Your task to perform on an android device: stop showing notifications on the lock screen Image 0: 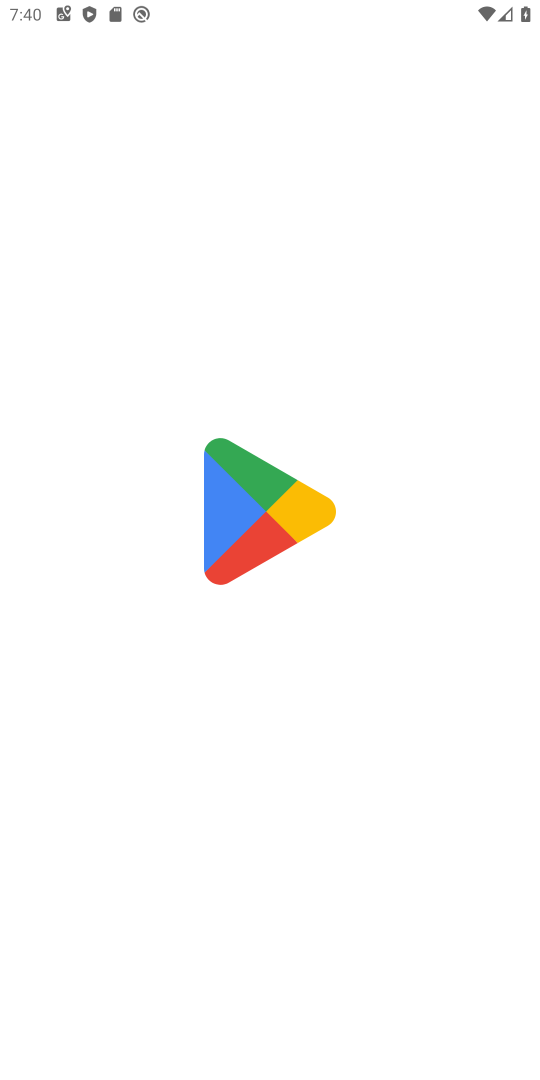
Step 0: press home button
Your task to perform on an android device: stop showing notifications on the lock screen Image 1: 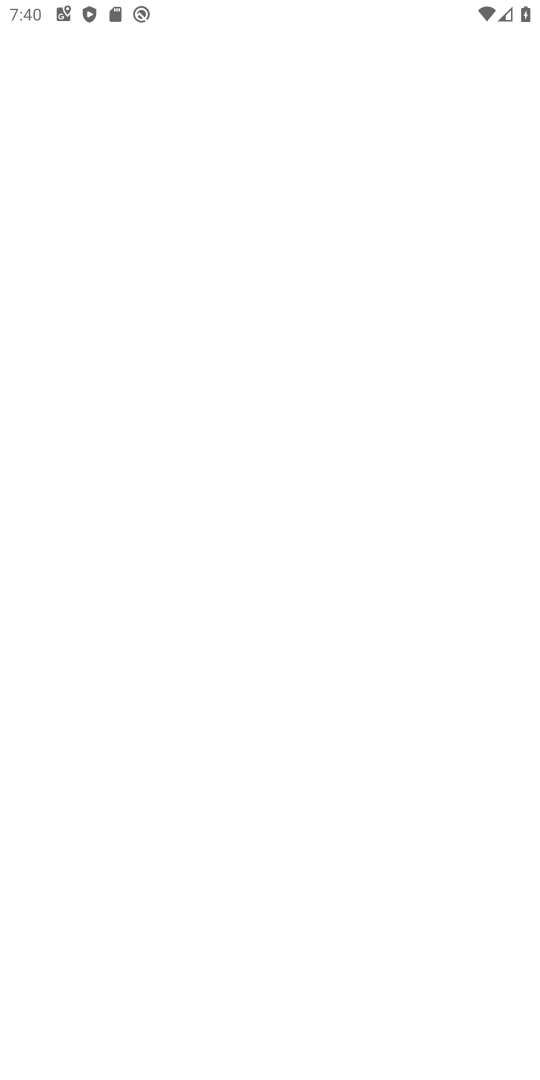
Step 1: press home button
Your task to perform on an android device: stop showing notifications on the lock screen Image 2: 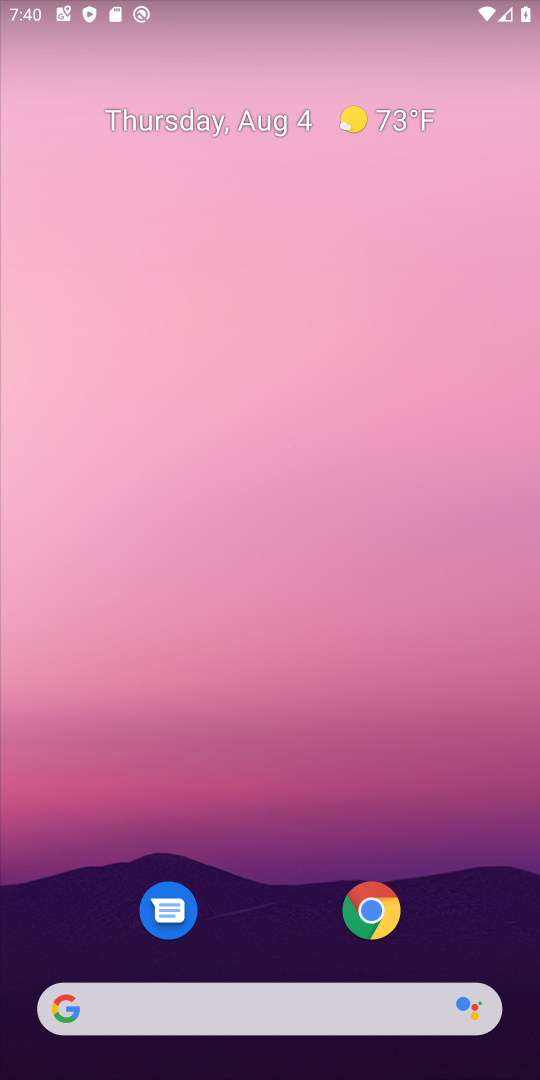
Step 2: drag from (445, 866) to (335, 129)
Your task to perform on an android device: stop showing notifications on the lock screen Image 3: 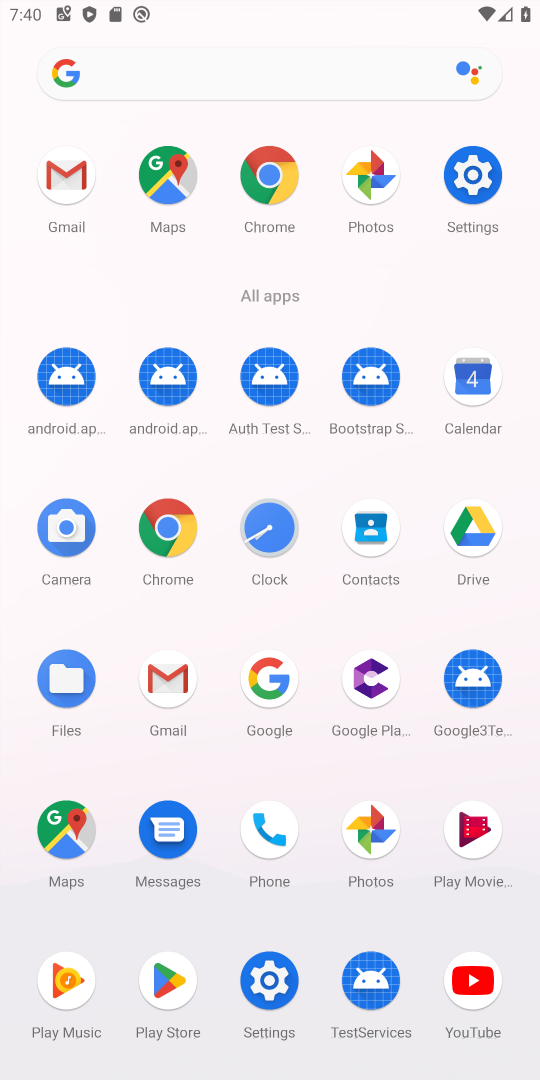
Step 3: click (276, 970)
Your task to perform on an android device: stop showing notifications on the lock screen Image 4: 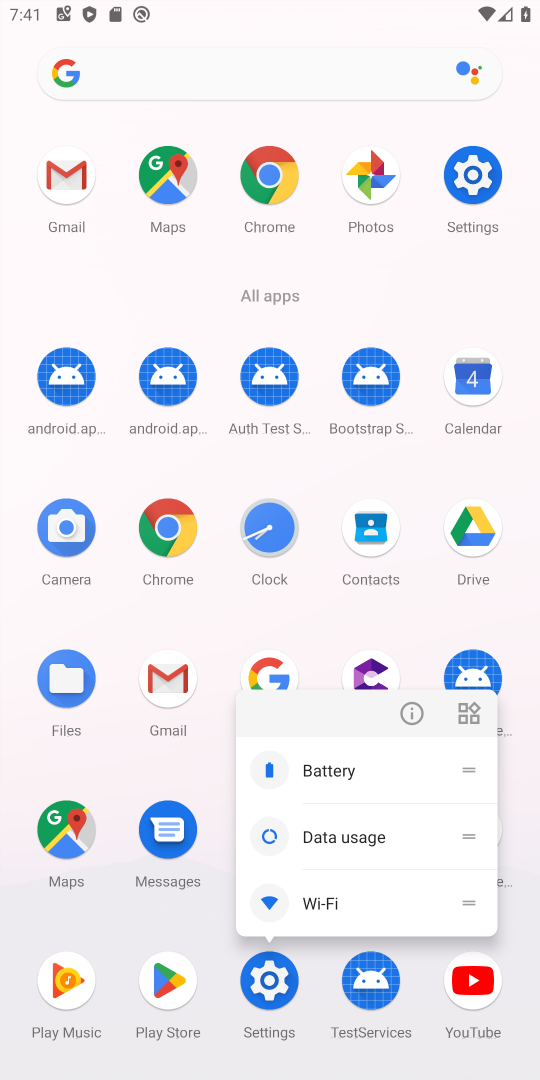
Step 4: click (273, 979)
Your task to perform on an android device: stop showing notifications on the lock screen Image 5: 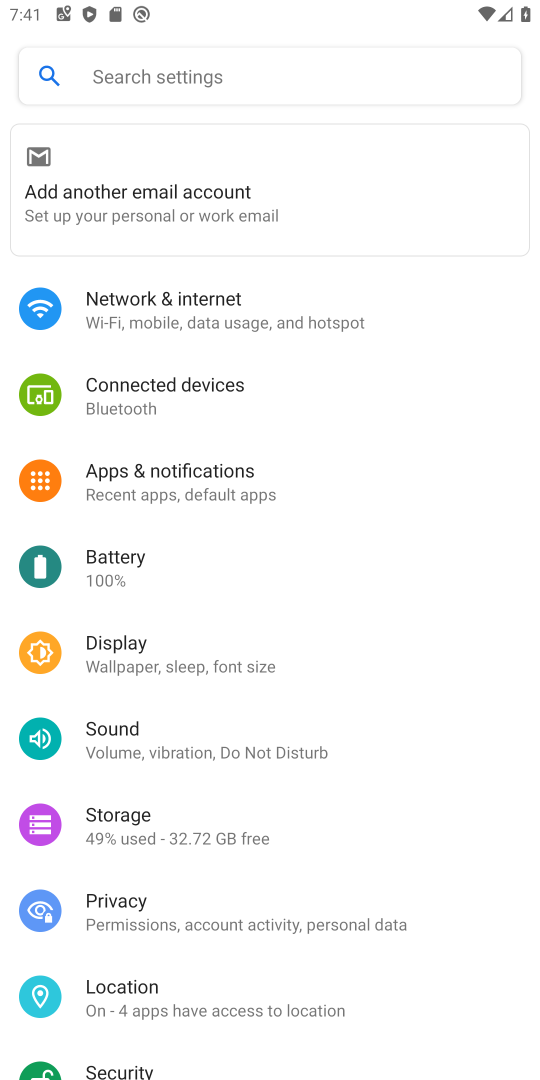
Step 5: click (146, 477)
Your task to perform on an android device: stop showing notifications on the lock screen Image 6: 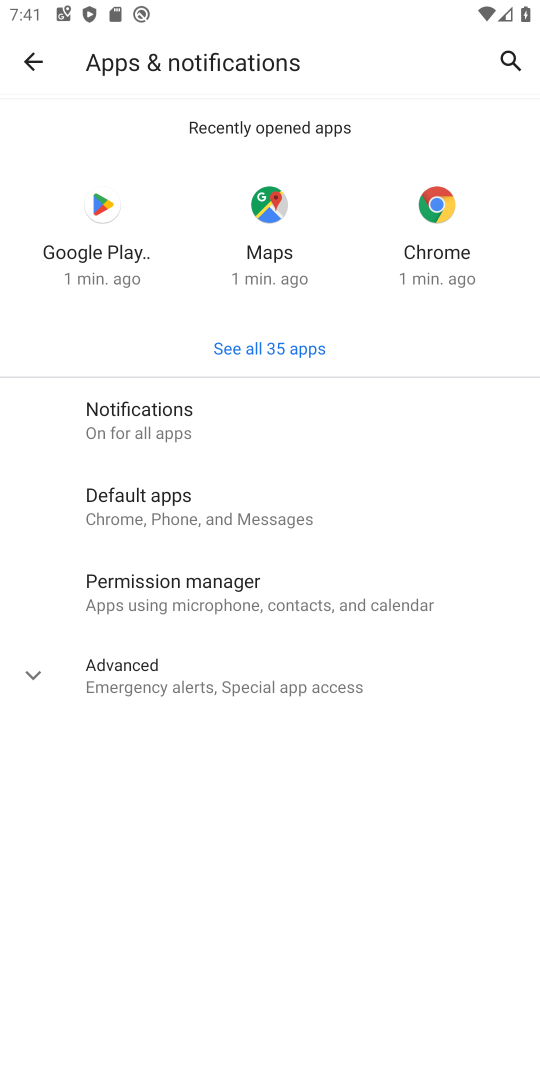
Step 6: click (130, 422)
Your task to perform on an android device: stop showing notifications on the lock screen Image 7: 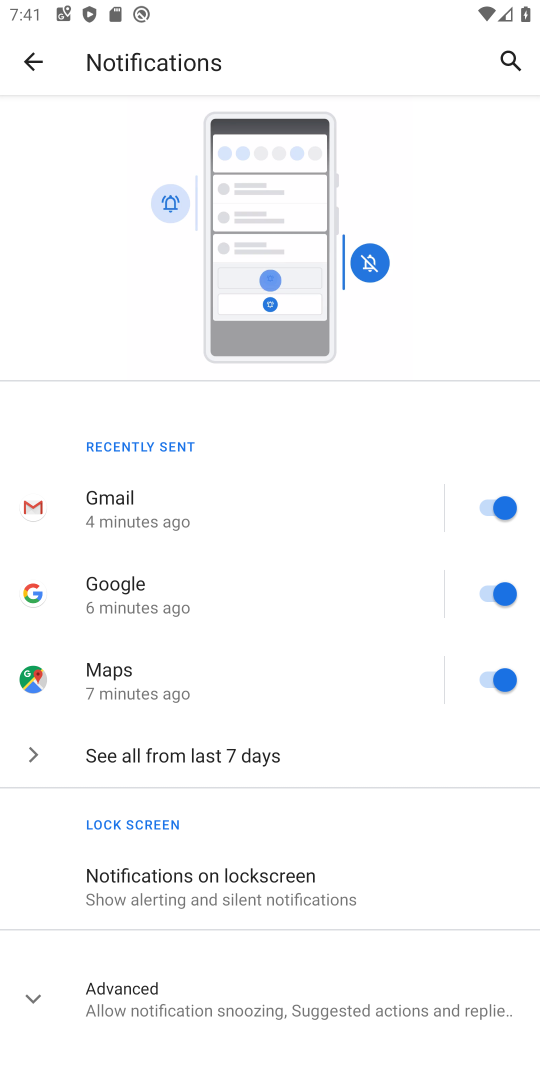
Step 7: click (234, 886)
Your task to perform on an android device: stop showing notifications on the lock screen Image 8: 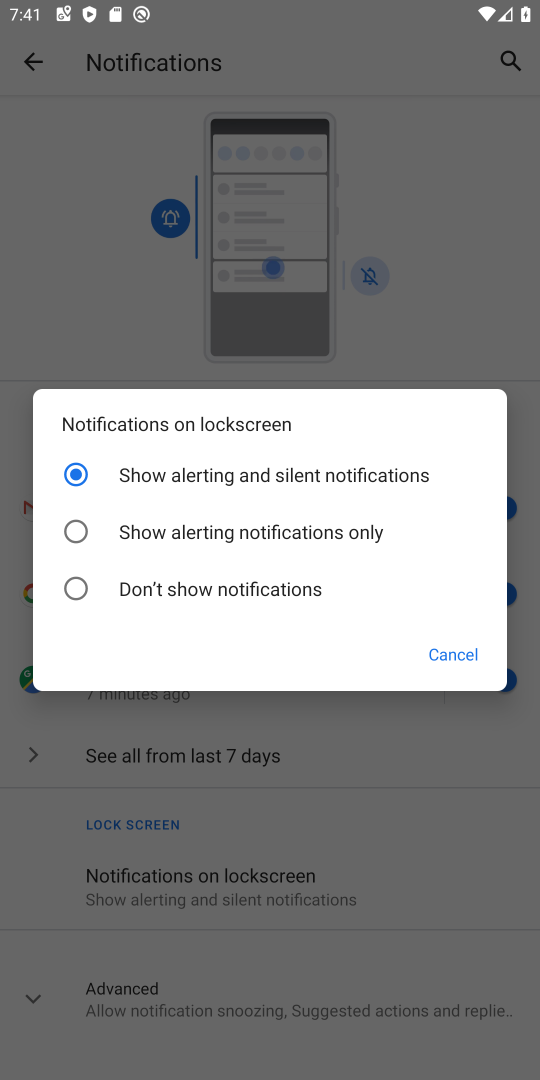
Step 8: click (164, 595)
Your task to perform on an android device: stop showing notifications on the lock screen Image 9: 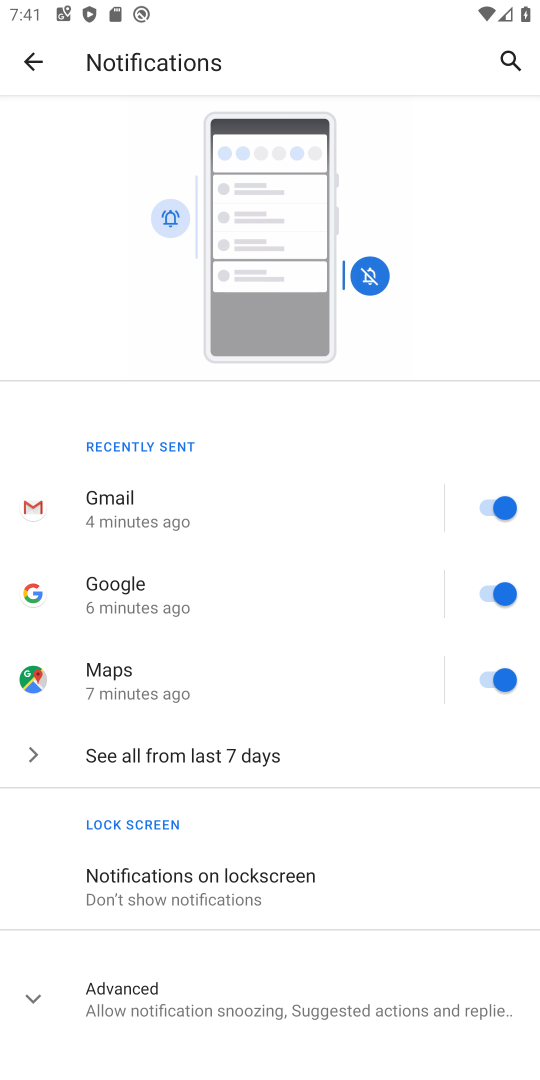
Step 9: task complete